Your task to perform on an android device: turn off airplane mode Image 0: 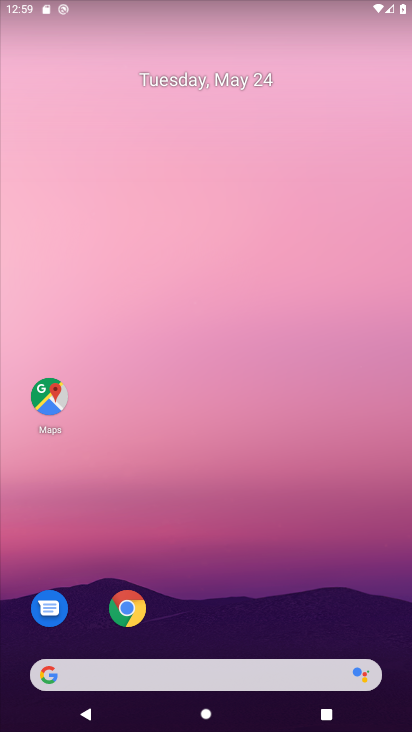
Step 0: drag from (265, 581) to (191, 194)
Your task to perform on an android device: turn off airplane mode Image 1: 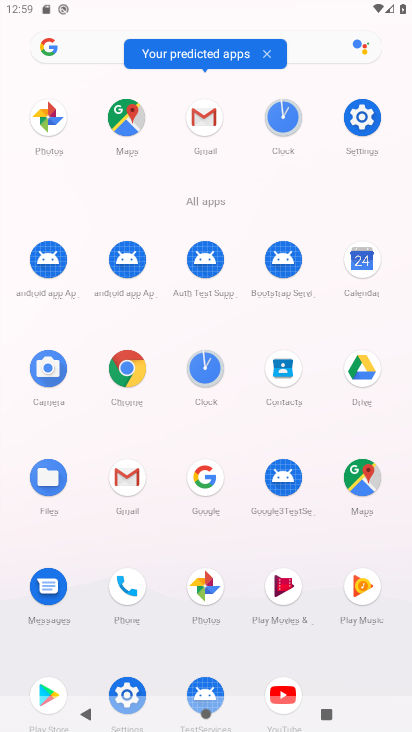
Step 1: click (365, 153)
Your task to perform on an android device: turn off airplane mode Image 2: 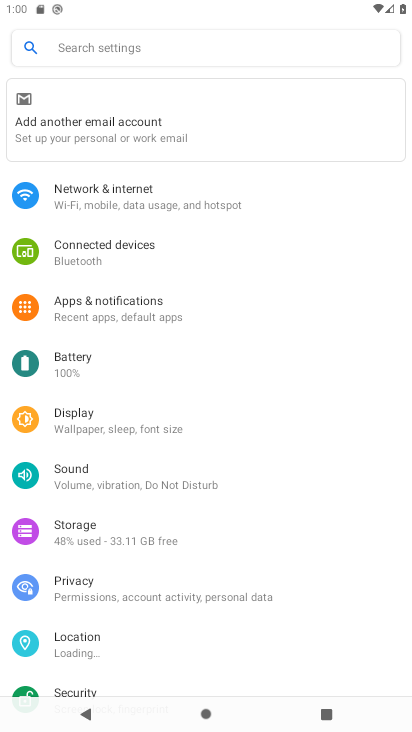
Step 2: click (173, 208)
Your task to perform on an android device: turn off airplane mode Image 3: 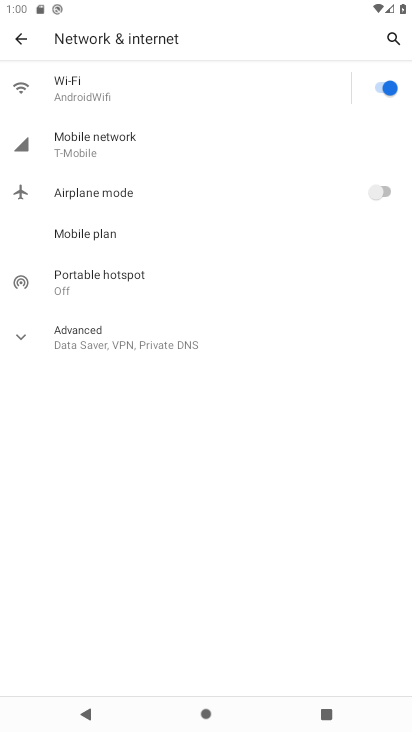
Step 3: click (376, 197)
Your task to perform on an android device: turn off airplane mode Image 4: 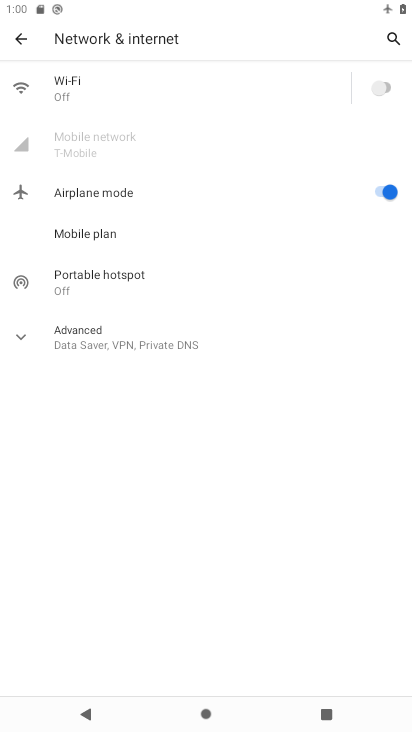
Step 4: click (389, 103)
Your task to perform on an android device: turn off airplane mode Image 5: 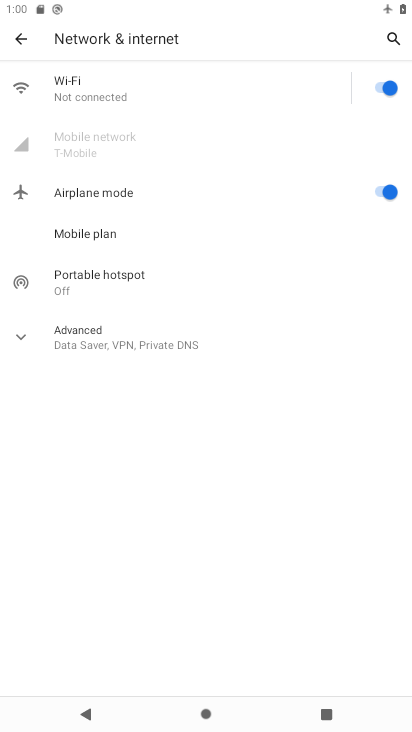
Step 5: task complete